Your task to perform on an android device: set the stopwatch Image 0: 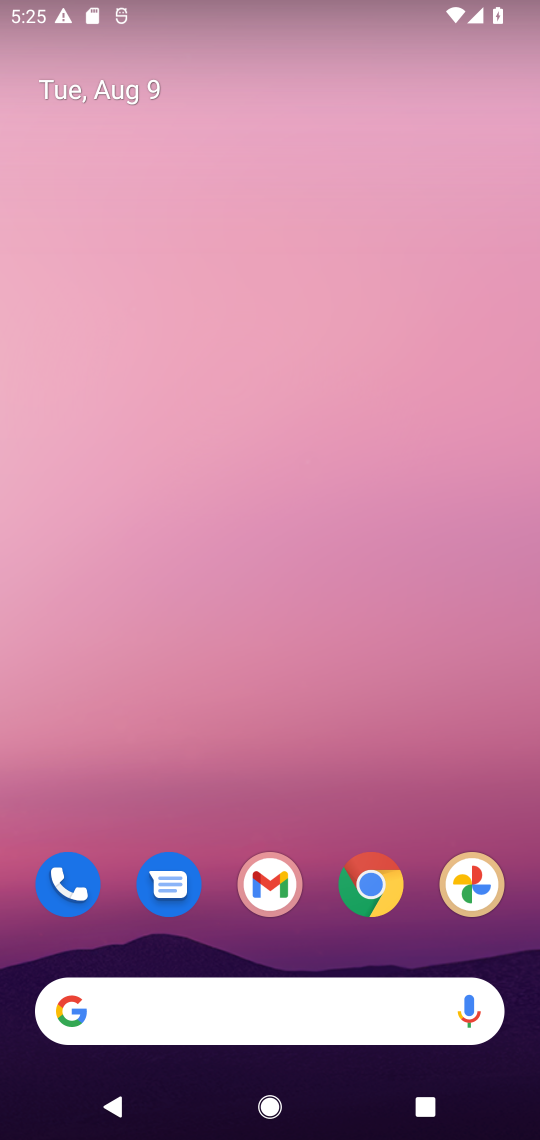
Step 0: drag from (192, 1003) to (324, 92)
Your task to perform on an android device: set the stopwatch Image 1: 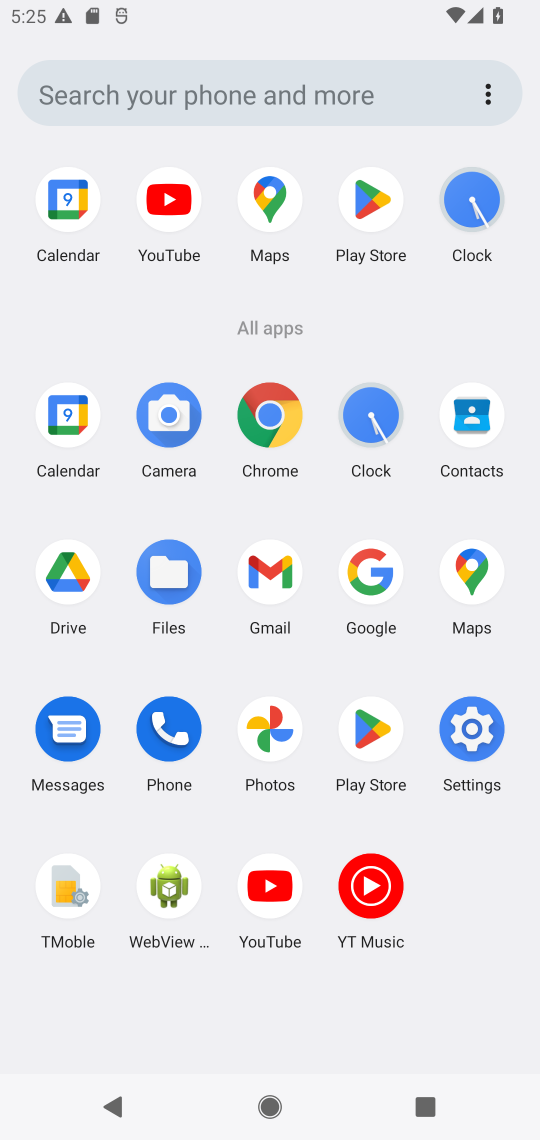
Step 1: click (473, 197)
Your task to perform on an android device: set the stopwatch Image 2: 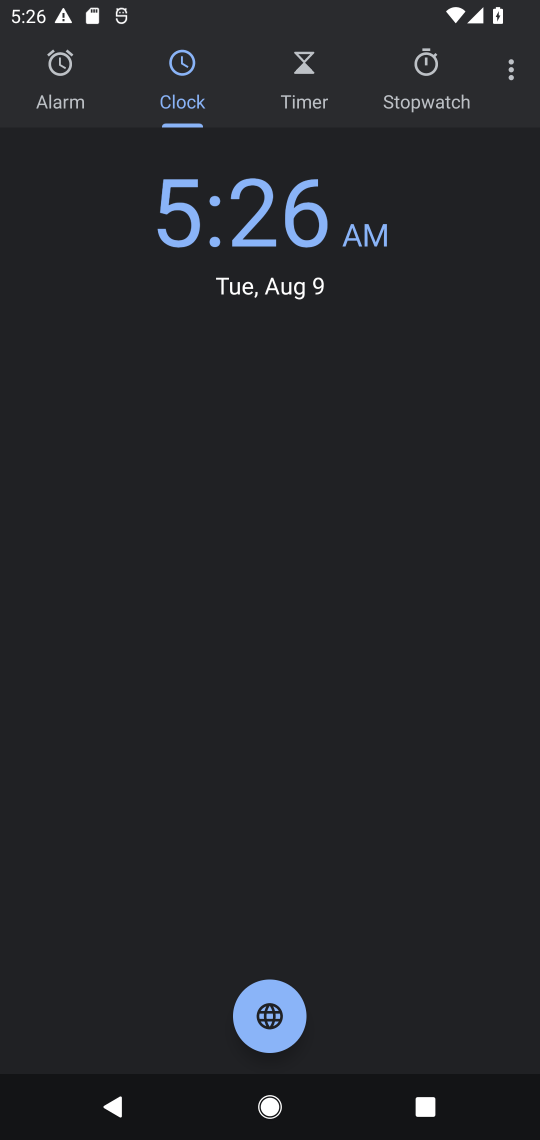
Step 2: click (430, 65)
Your task to perform on an android device: set the stopwatch Image 3: 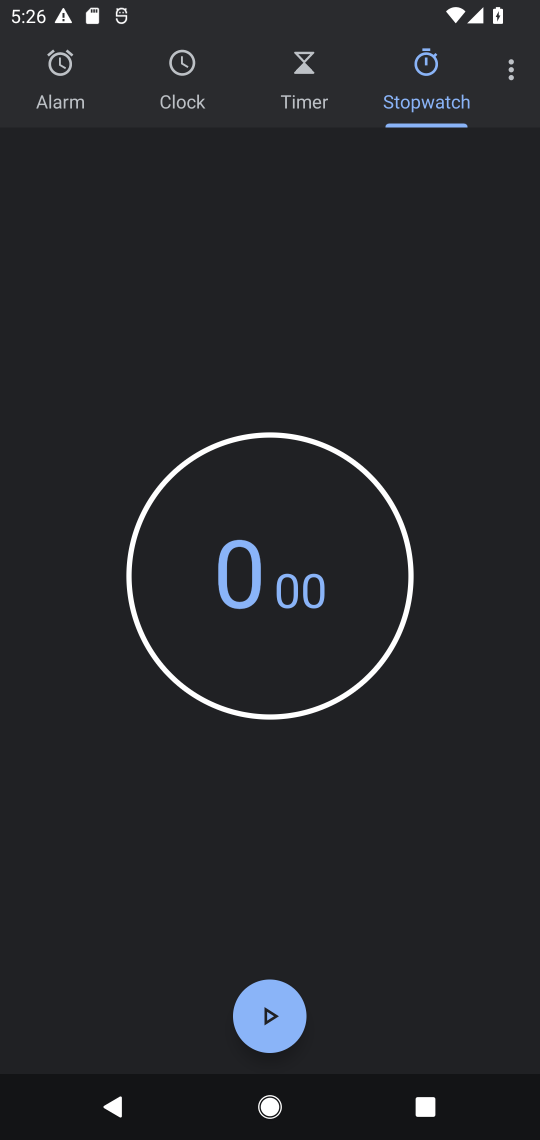
Step 3: task complete